Your task to perform on an android device: Open Youtube and go to the subscriptions tab Image 0: 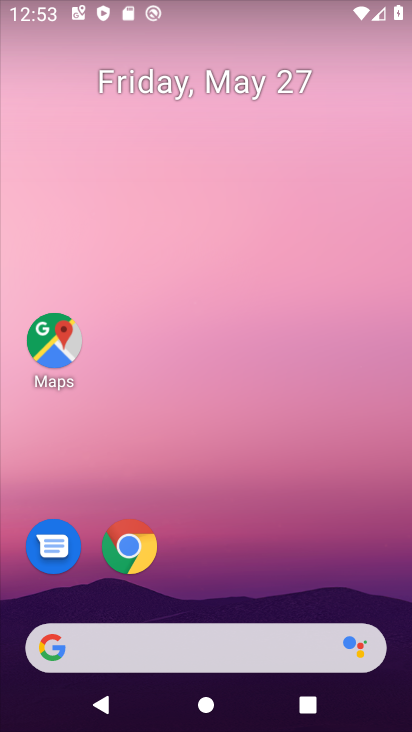
Step 0: drag from (330, 342) to (408, 37)
Your task to perform on an android device: Open Youtube and go to the subscriptions tab Image 1: 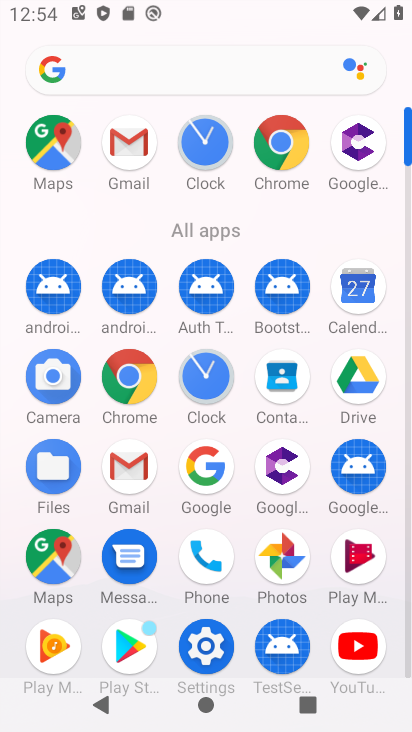
Step 1: click (338, 631)
Your task to perform on an android device: Open Youtube and go to the subscriptions tab Image 2: 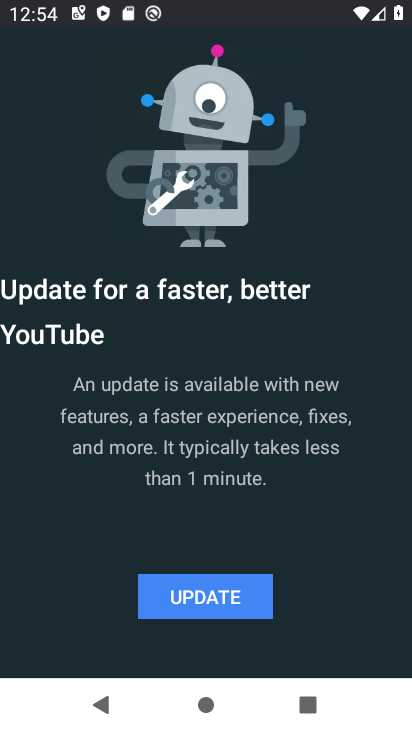
Step 2: click (217, 599)
Your task to perform on an android device: Open Youtube and go to the subscriptions tab Image 3: 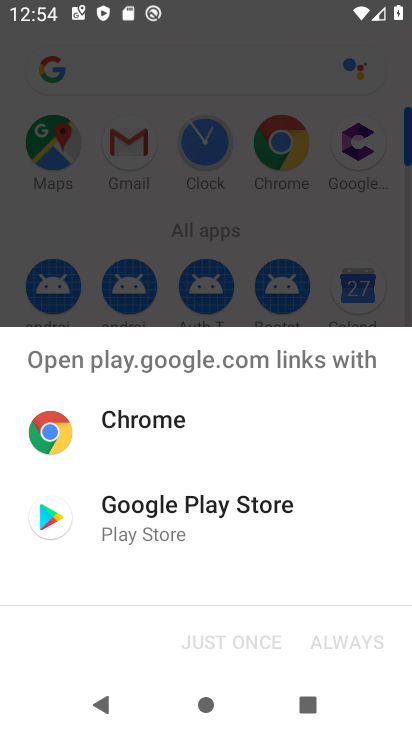
Step 3: click (156, 532)
Your task to perform on an android device: Open Youtube and go to the subscriptions tab Image 4: 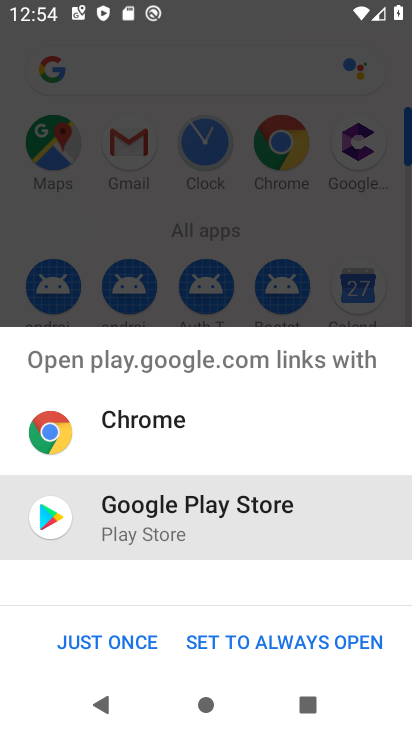
Step 4: click (107, 641)
Your task to perform on an android device: Open Youtube and go to the subscriptions tab Image 5: 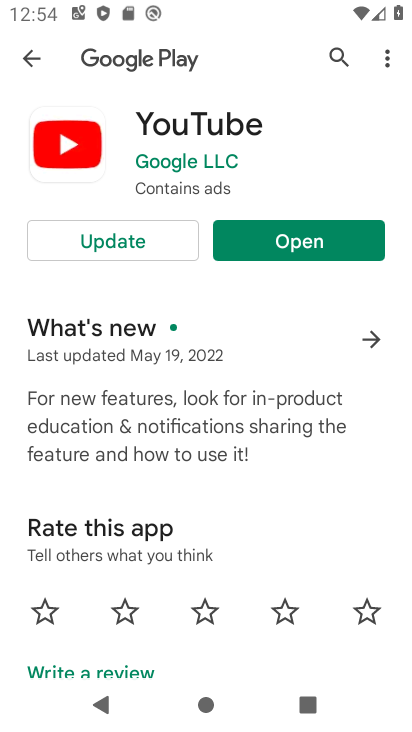
Step 5: click (130, 252)
Your task to perform on an android device: Open Youtube and go to the subscriptions tab Image 6: 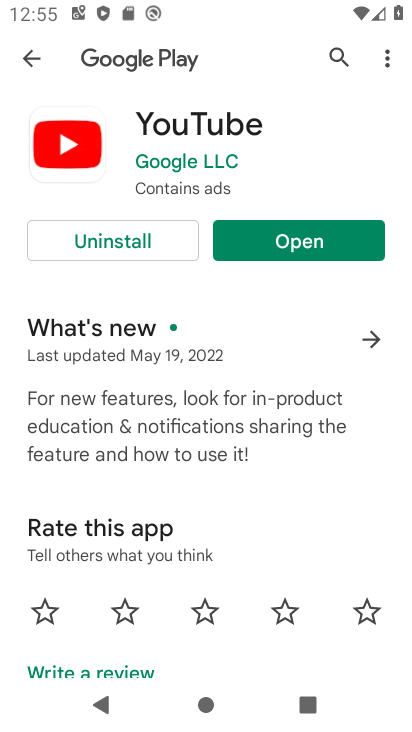
Step 6: click (279, 230)
Your task to perform on an android device: Open Youtube and go to the subscriptions tab Image 7: 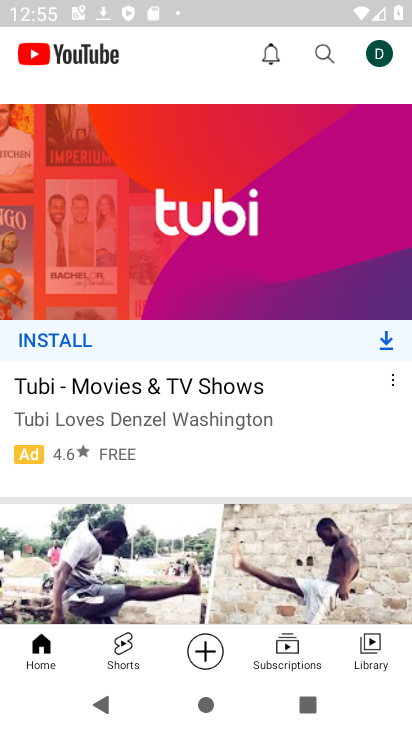
Step 7: click (284, 657)
Your task to perform on an android device: Open Youtube and go to the subscriptions tab Image 8: 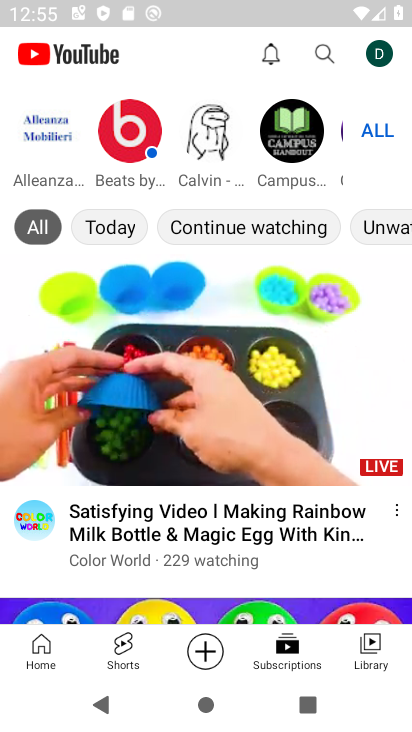
Step 8: task complete